Your task to perform on an android device: see sites visited before in the chrome app Image 0: 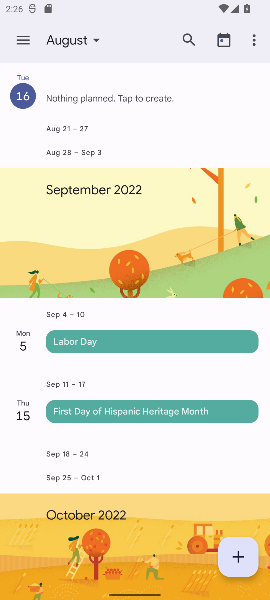
Step 0: task complete